Your task to perform on an android device: change text size in settings app Image 0: 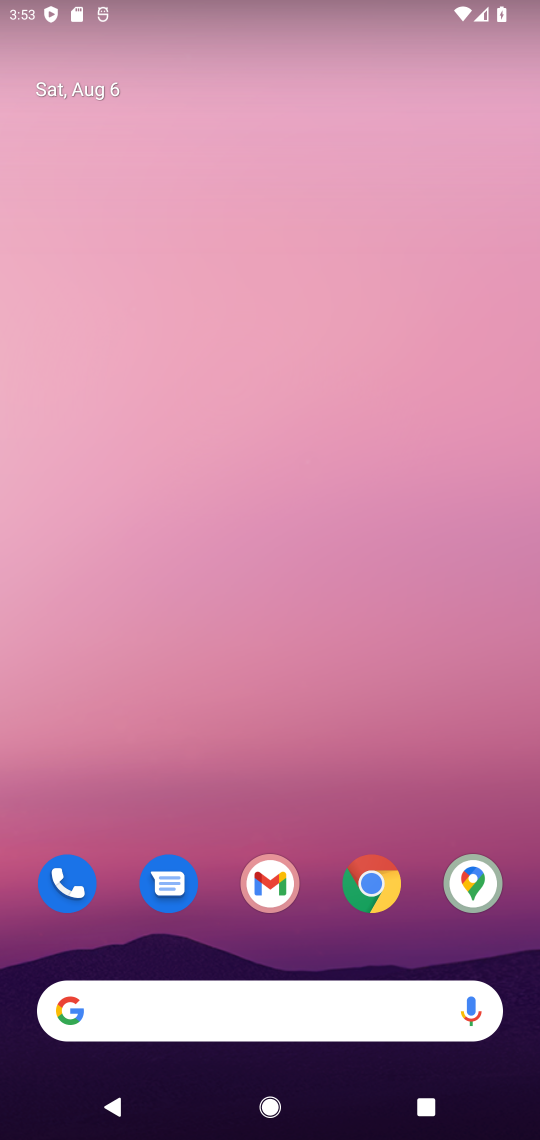
Step 0: drag from (226, 864) to (206, 52)
Your task to perform on an android device: change text size in settings app Image 1: 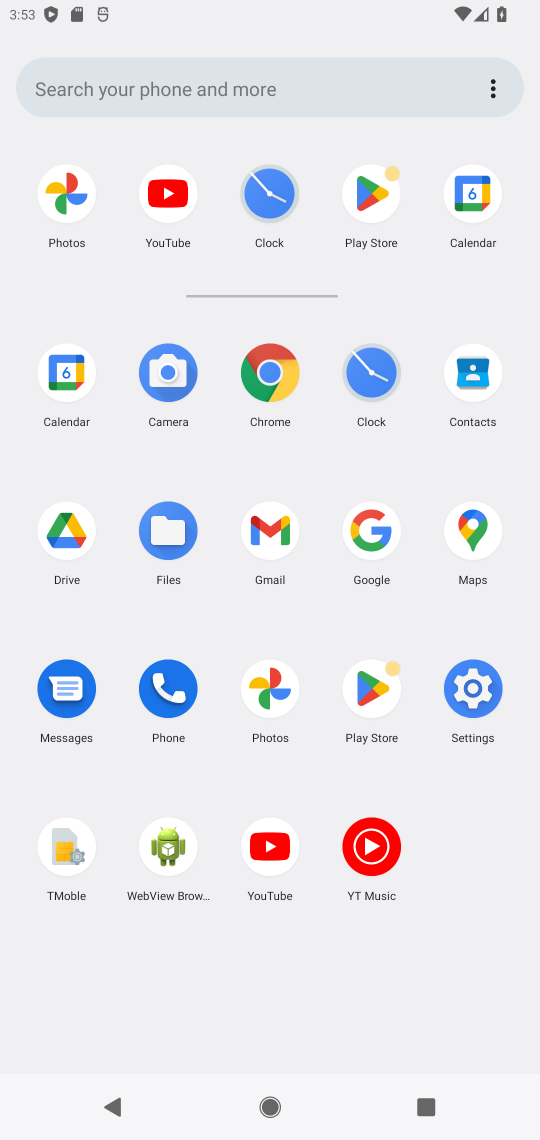
Step 1: click (479, 677)
Your task to perform on an android device: change text size in settings app Image 2: 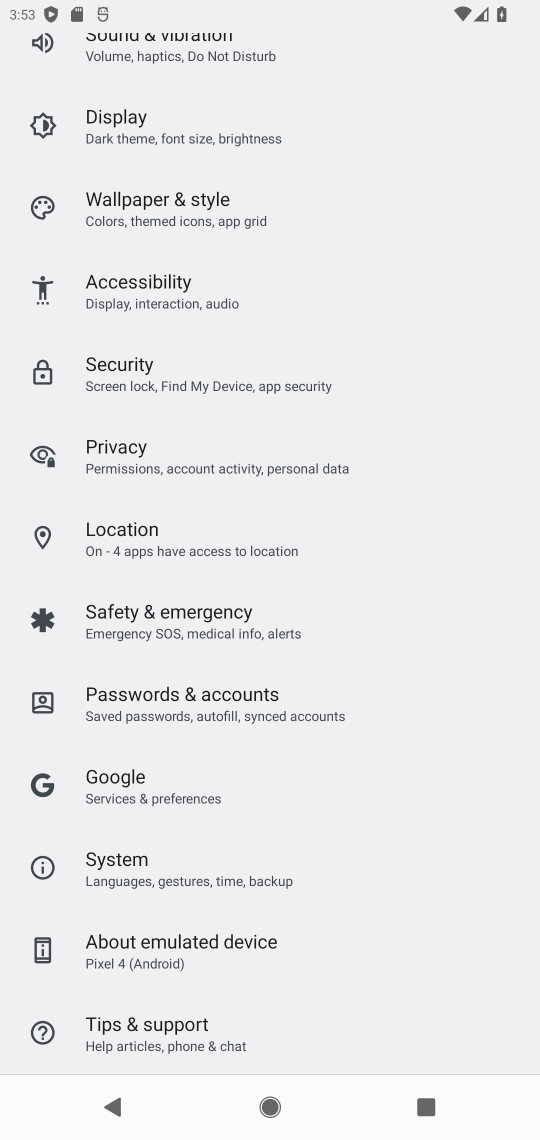
Step 2: click (265, 134)
Your task to perform on an android device: change text size in settings app Image 3: 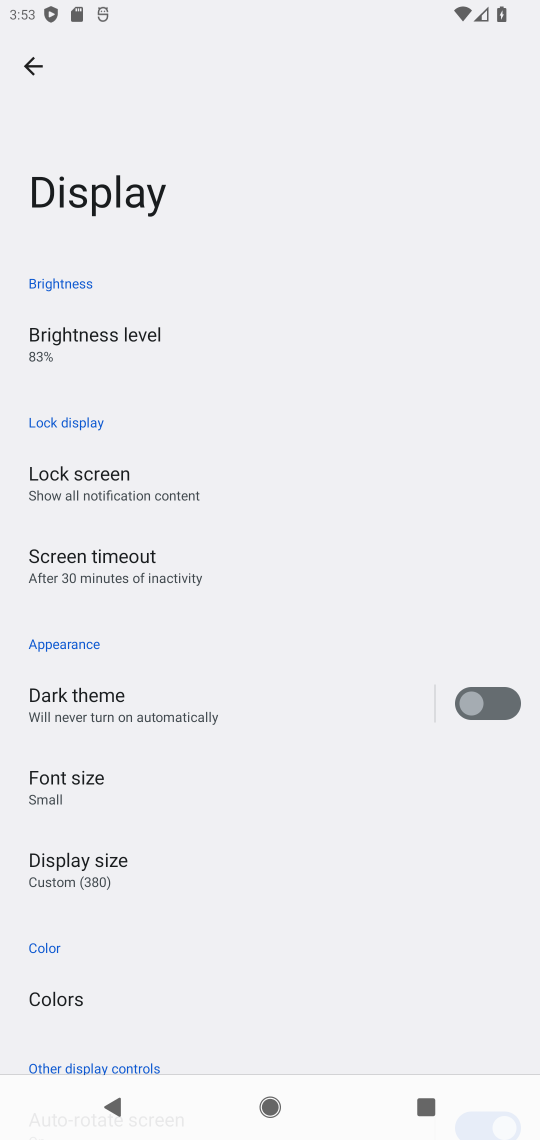
Step 3: click (99, 791)
Your task to perform on an android device: change text size in settings app Image 4: 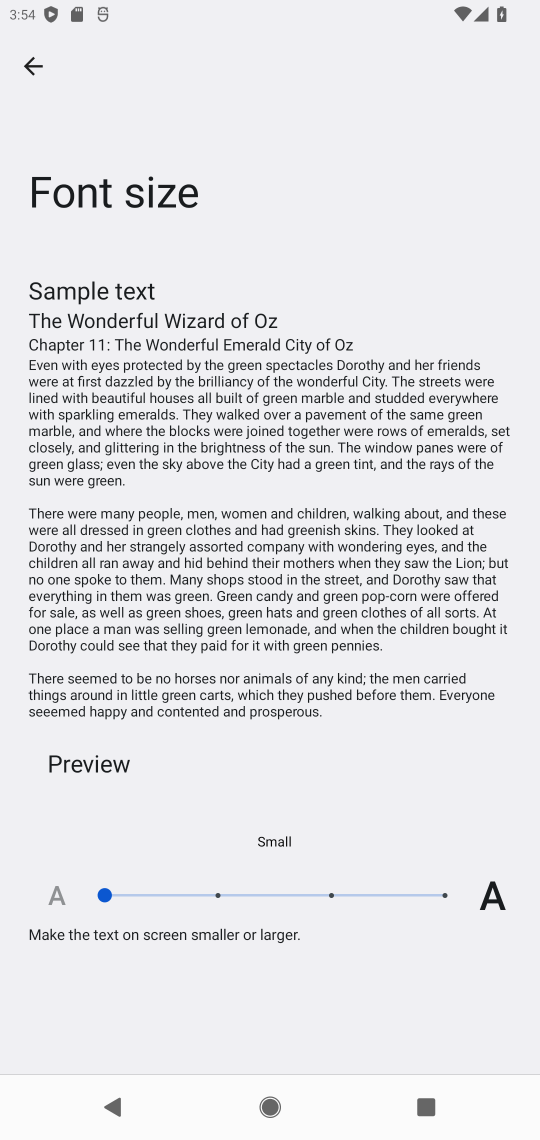
Step 4: click (324, 894)
Your task to perform on an android device: change text size in settings app Image 5: 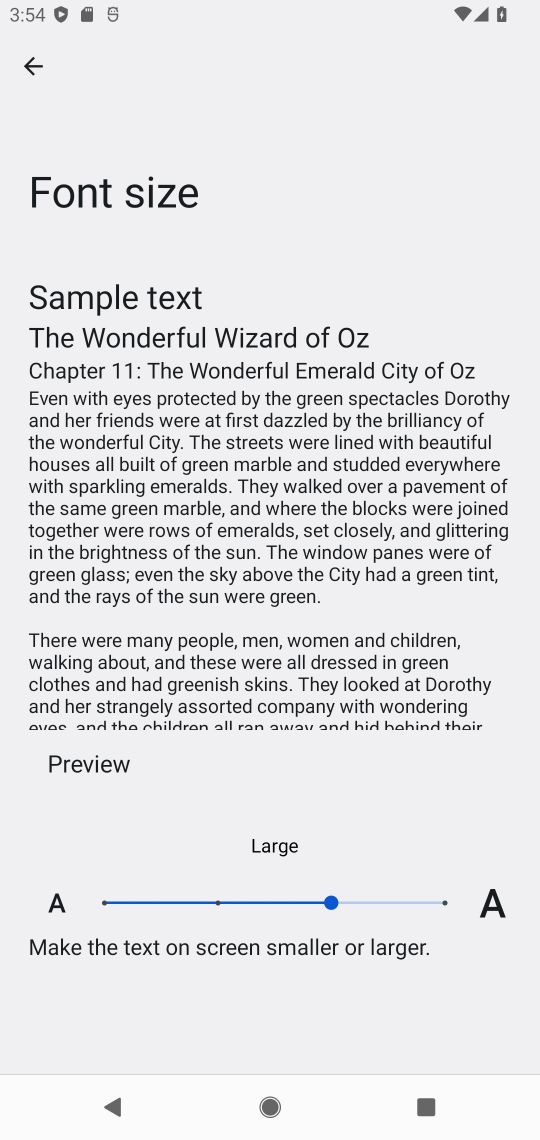
Step 5: task complete